Your task to perform on an android device: turn notification dots off Image 0: 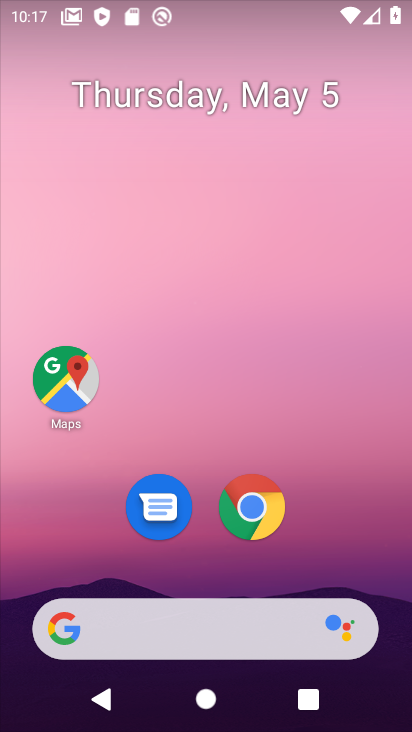
Step 0: drag from (338, 582) to (364, 3)
Your task to perform on an android device: turn notification dots off Image 1: 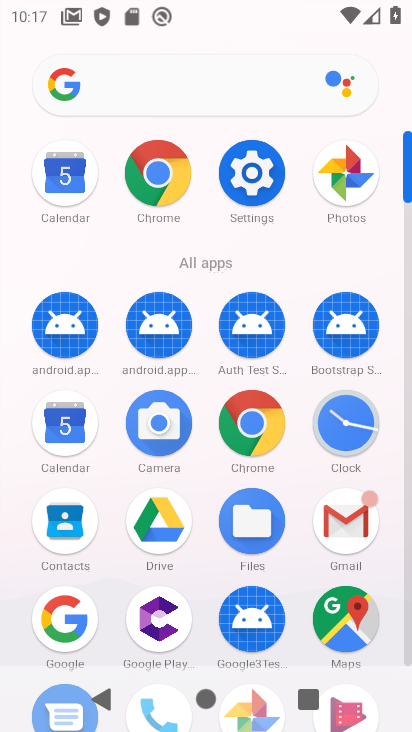
Step 1: click (250, 178)
Your task to perform on an android device: turn notification dots off Image 2: 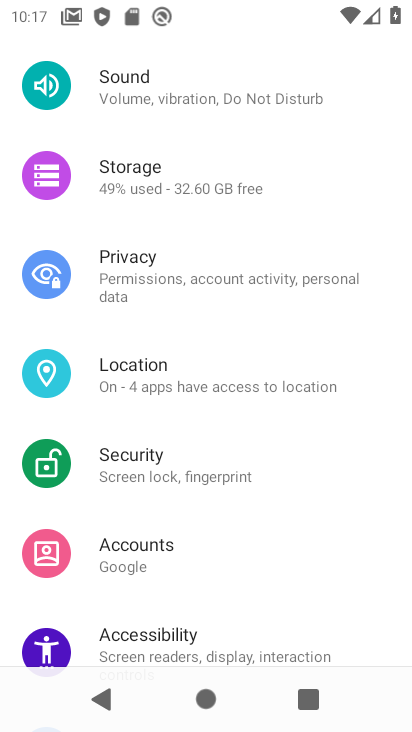
Step 2: drag from (348, 209) to (341, 529)
Your task to perform on an android device: turn notification dots off Image 3: 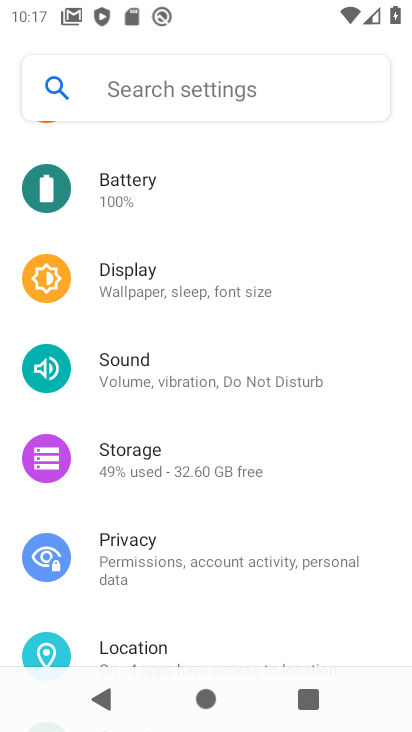
Step 3: drag from (337, 279) to (334, 515)
Your task to perform on an android device: turn notification dots off Image 4: 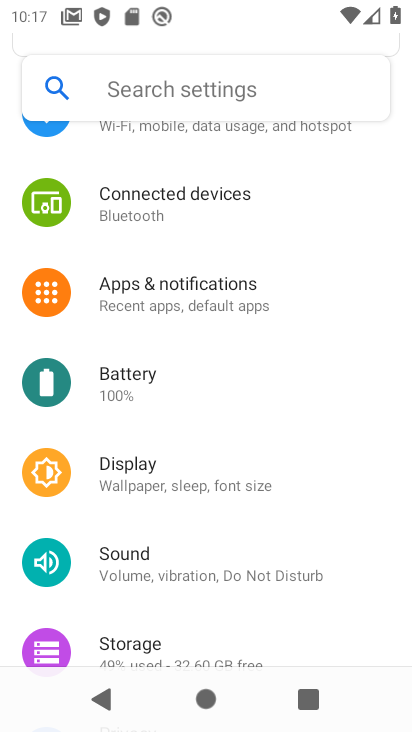
Step 4: click (218, 291)
Your task to perform on an android device: turn notification dots off Image 5: 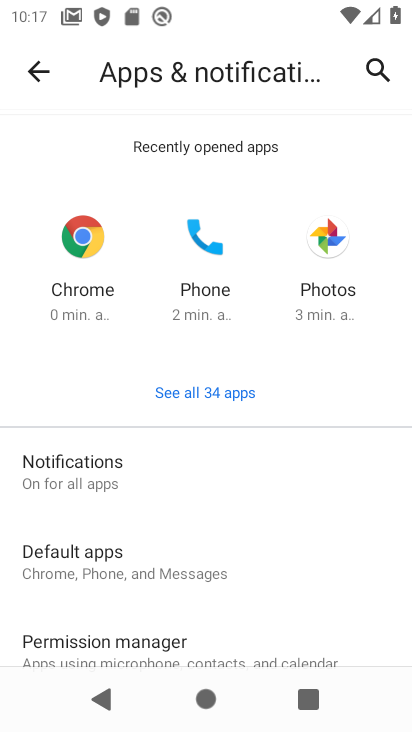
Step 5: click (92, 484)
Your task to perform on an android device: turn notification dots off Image 6: 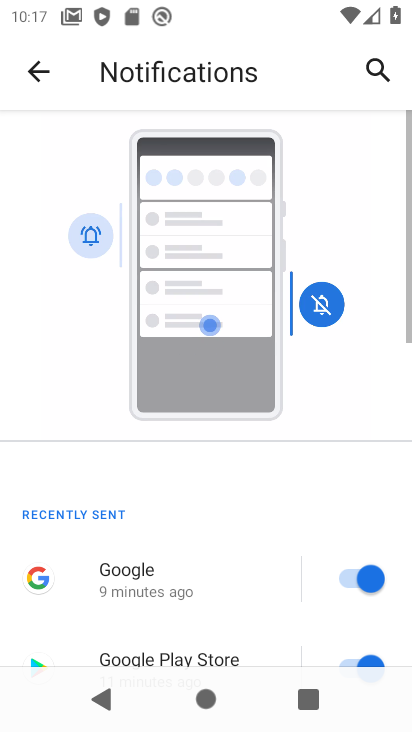
Step 6: drag from (195, 606) to (166, 165)
Your task to perform on an android device: turn notification dots off Image 7: 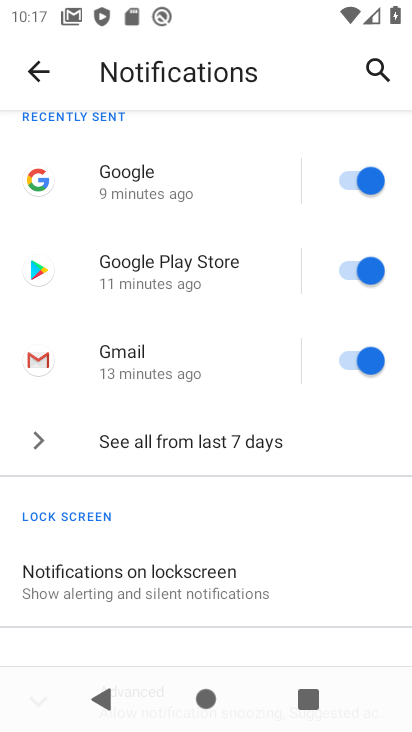
Step 7: drag from (164, 546) to (179, 174)
Your task to perform on an android device: turn notification dots off Image 8: 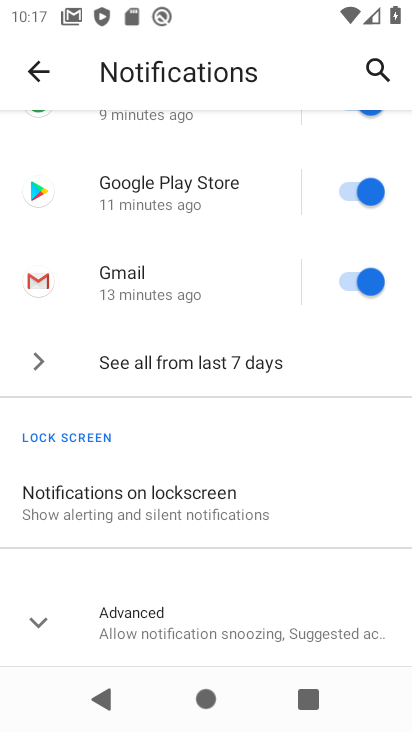
Step 8: click (39, 635)
Your task to perform on an android device: turn notification dots off Image 9: 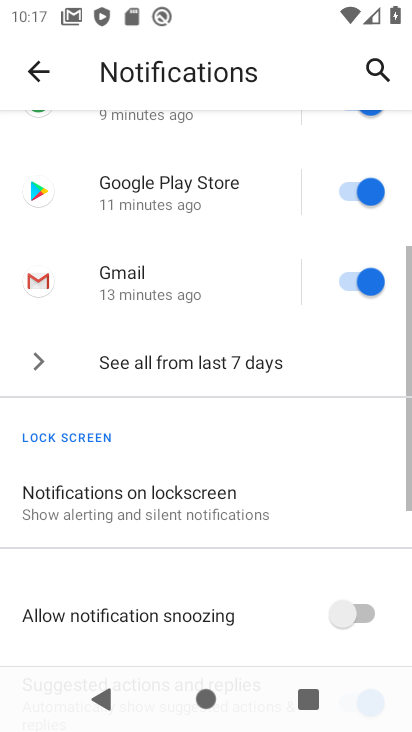
Step 9: drag from (219, 653) to (246, 218)
Your task to perform on an android device: turn notification dots off Image 10: 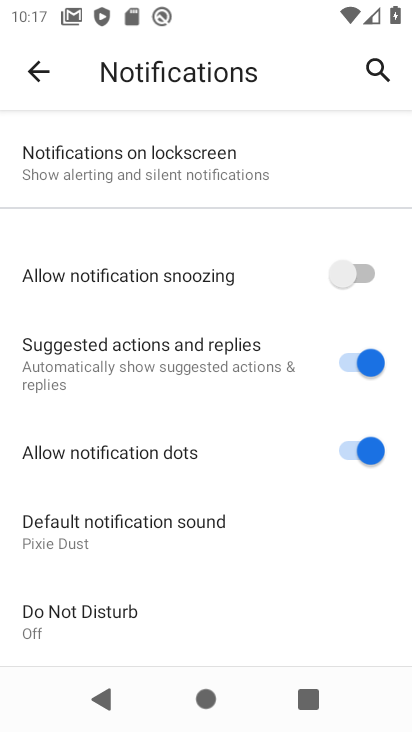
Step 10: click (379, 460)
Your task to perform on an android device: turn notification dots off Image 11: 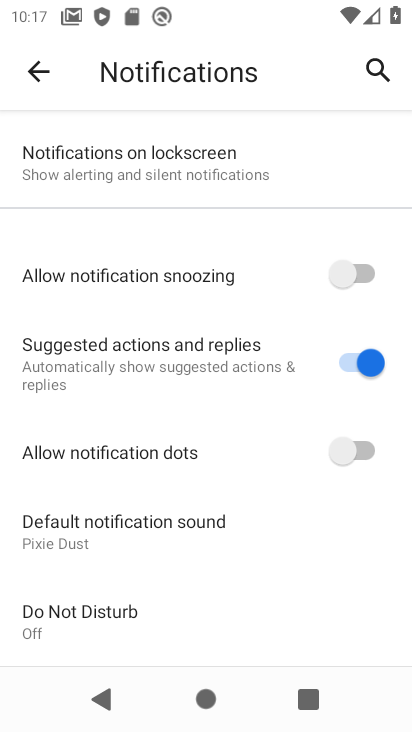
Step 11: task complete